Your task to perform on an android device: turn on notifications settings in the gmail app Image 0: 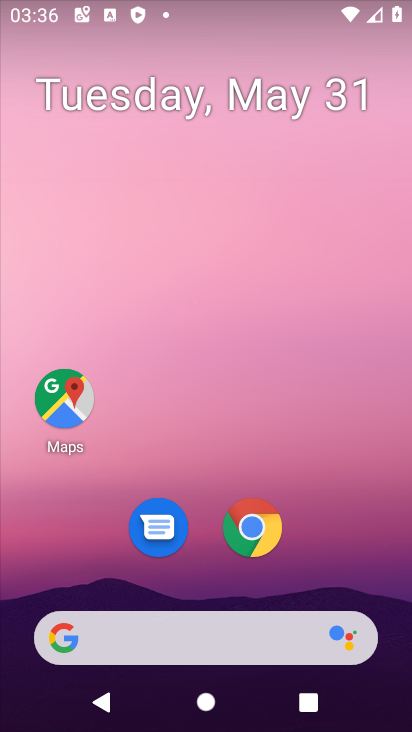
Step 0: drag from (397, 629) to (353, 149)
Your task to perform on an android device: turn on notifications settings in the gmail app Image 1: 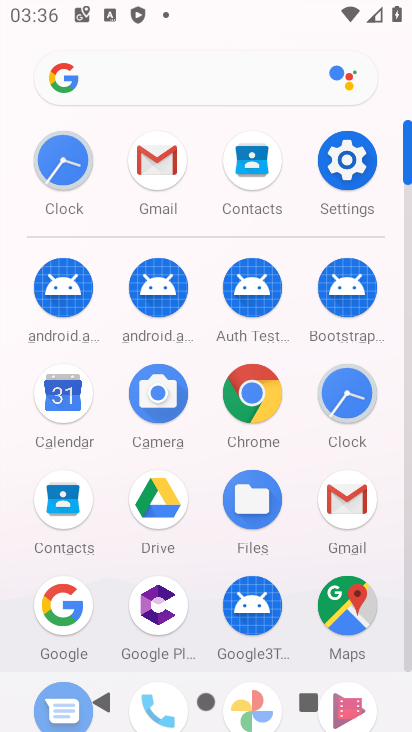
Step 1: click (347, 497)
Your task to perform on an android device: turn on notifications settings in the gmail app Image 2: 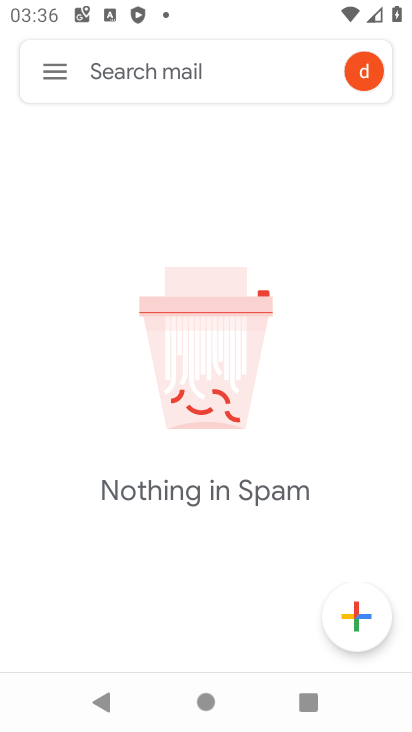
Step 2: click (62, 76)
Your task to perform on an android device: turn on notifications settings in the gmail app Image 3: 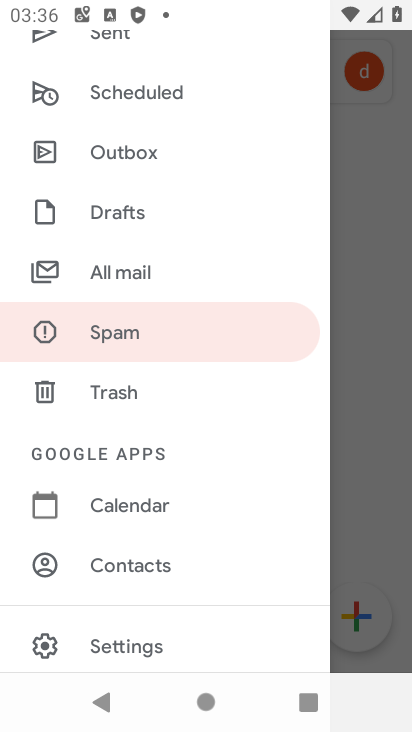
Step 3: click (141, 643)
Your task to perform on an android device: turn on notifications settings in the gmail app Image 4: 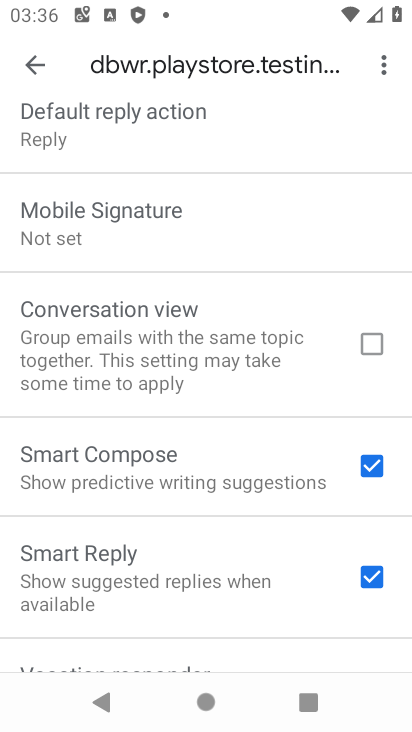
Step 4: drag from (268, 315) to (236, 600)
Your task to perform on an android device: turn on notifications settings in the gmail app Image 5: 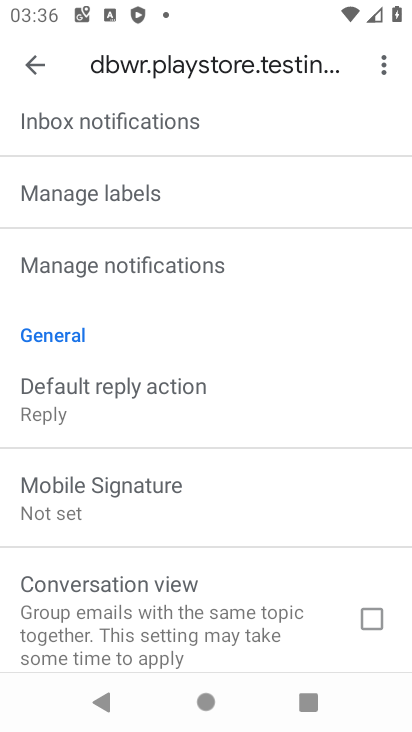
Step 5: drag from (266, 209) to (257, 496)
Your task to perform on an android device: turn on notifications settings in the gmail app Image 6: 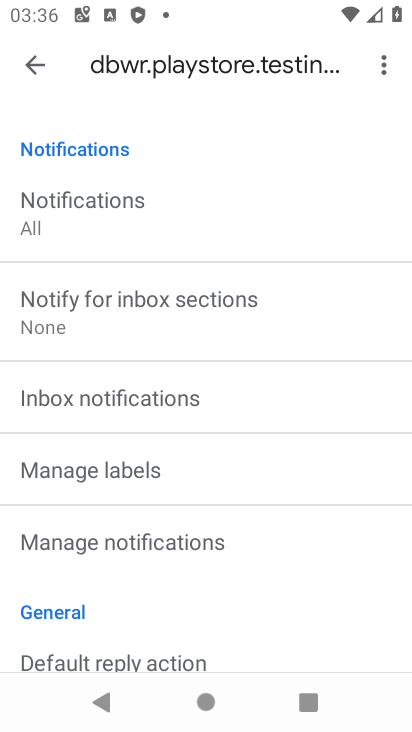
Step 6: drag from (312, 172) to (295, 476)
Your task to perform on an android device: turn on notifications settings in the gmail app Image 7: 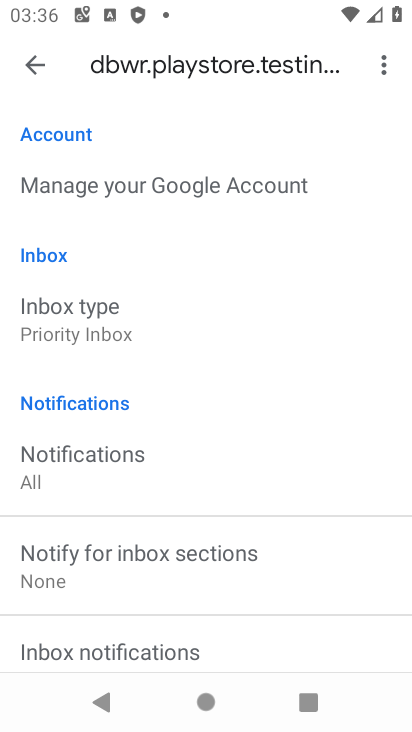
Step 7: drag from (262, 286) to (220, 175)
Your task to perform on an android device: turn on notifications settings in the gmail app Image 8: 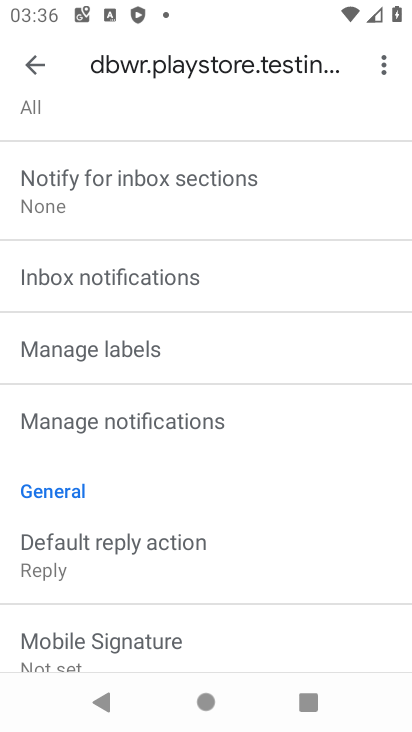
Step 8: click (122, 423)
Your task to perform on an android device: turn on notifications settings in the gmail app Image 9: 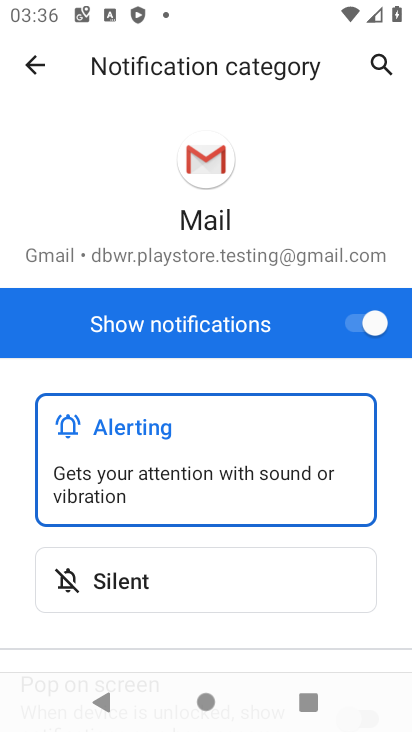
Step 9: drag from (363, 543) to (207, 97)
Your task to perform on an android device: turn on notifications settings in the gmail app Image 10: 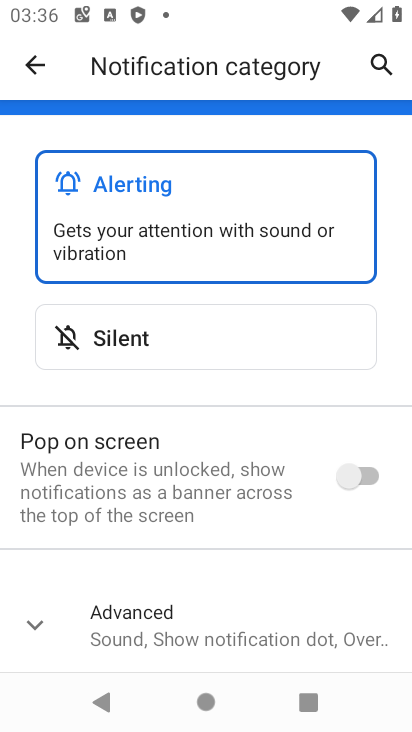
Step 10: click (44, 625)
Your task to perform on an android device: turn on notifications settings in the gmail app Image 11: 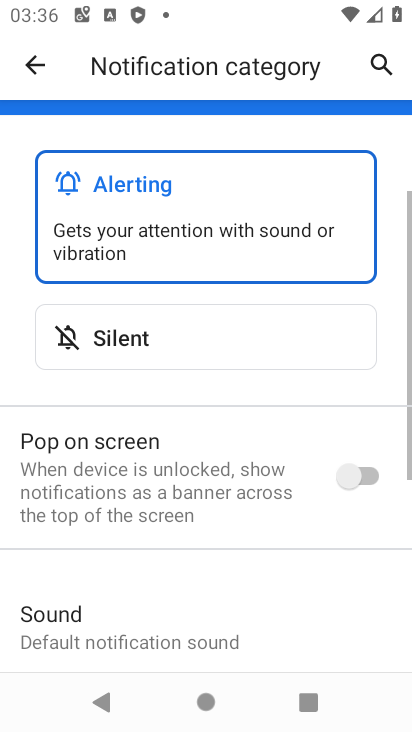
Step 11: task complete